Your task to perform on an android device: Open network settings Image 0: 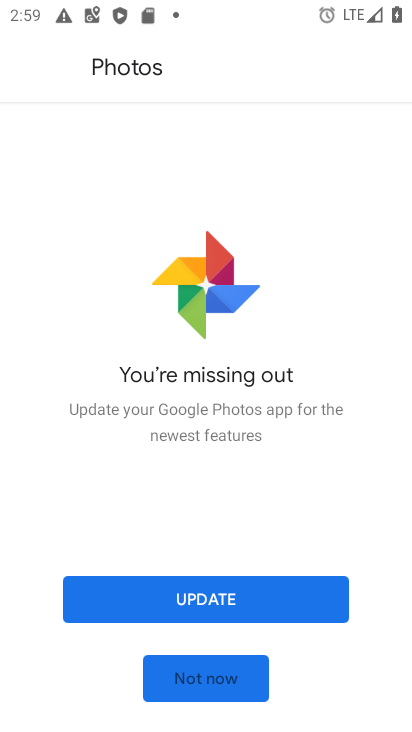
Step 0: press home button
Your task to perform on an android device: Open network settings Image 1: 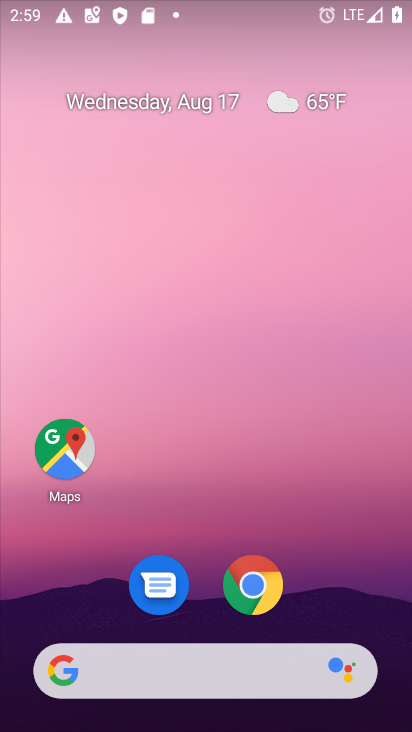
Step 1: drag from (317, 555) to (392, 21)
Your task to perform on an android device: Open network settings Image 2: 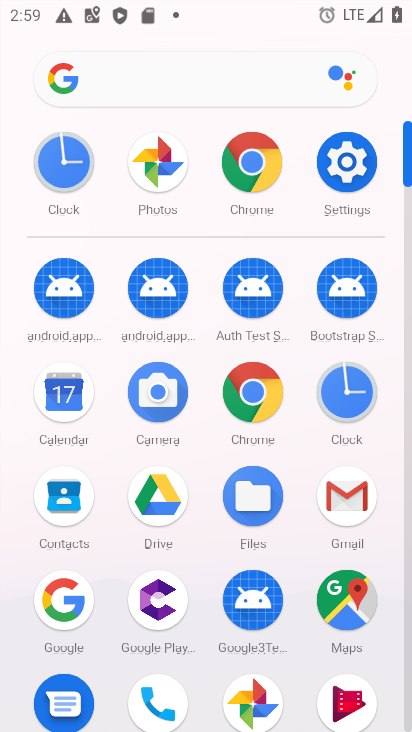
Step 2: click (352, 157)
Your task to perform on an android device: Open network settings Image 3: 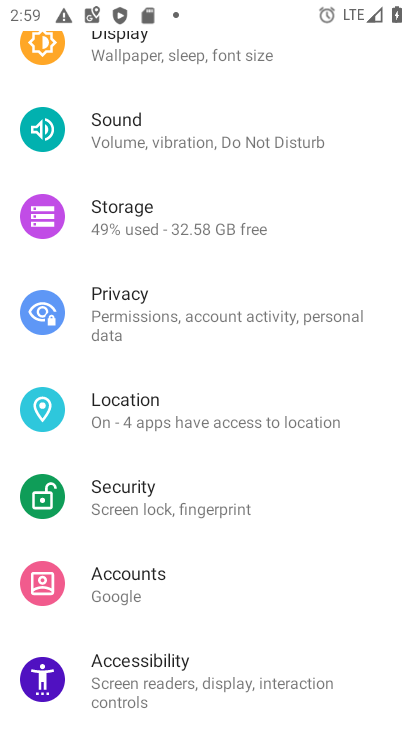
Step 3: drag from (335, 235) to (294, 635)
Your task to perform on an android device: Open network settings Image 4: 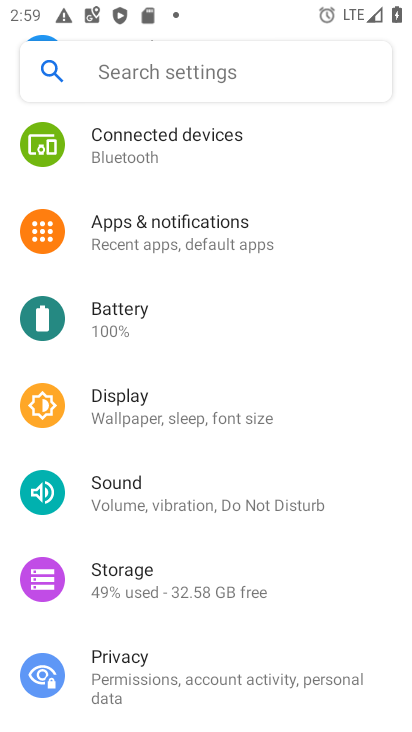
Step 4: drag from (228, 193) to (214, 512)
Your task to perform on an android device: Open network settings Image 5: 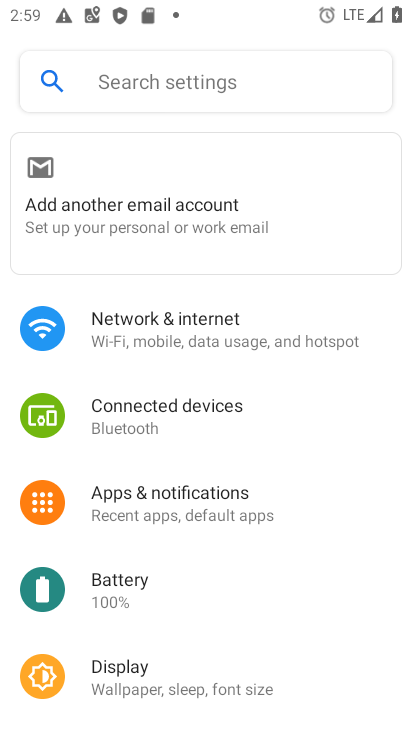
Step 5: click (196, 331)
Your task to perform on an android device: Open network settings Image 6: 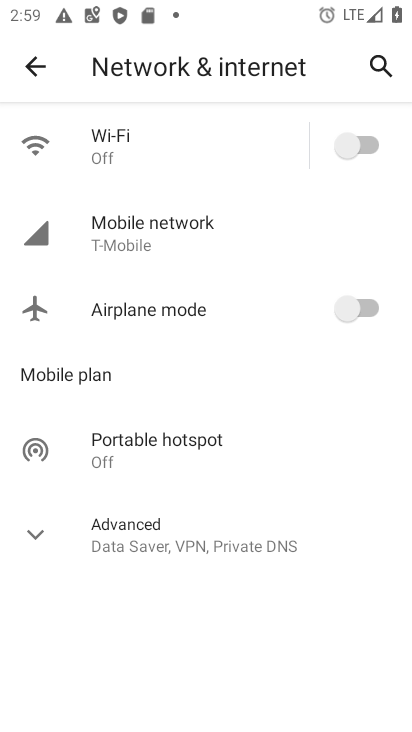
Step 6: task complete